Your task to perform on an android device: allow notifications from all sites in the chrome app Image 0: 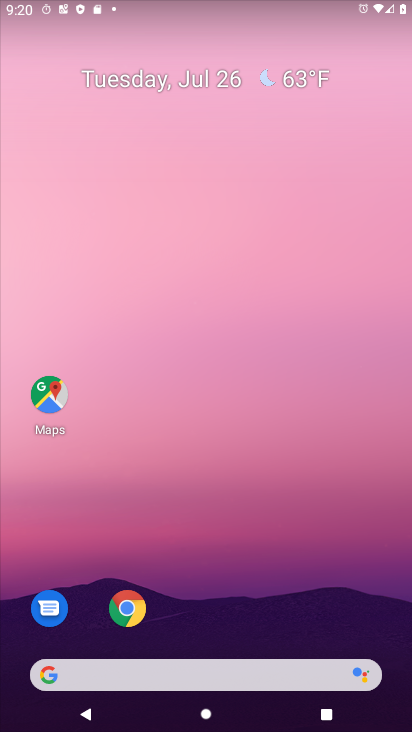
Step 0: click (125, 614)
Your task to perform on an android device: allow notifications from all sites in the chrome app Image 1: 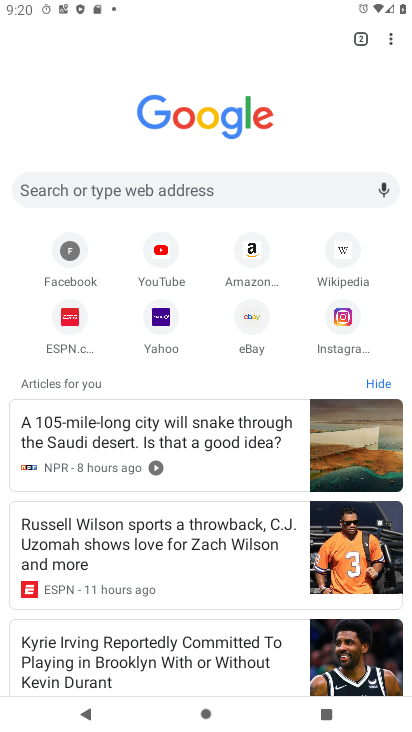
Step 1: click (396, 46)
Your task to perform on an android device: allow notifications from all sites in the chrome app Image 2: 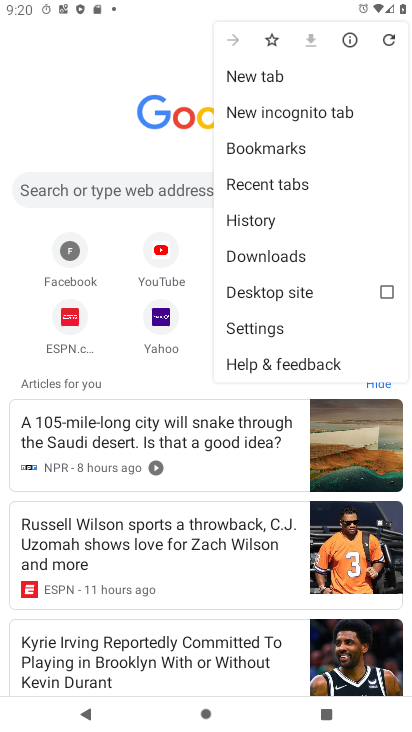
Step 2: click (280, 325)
Your task to perform on an android device: allow notifications from all sites in the chrome app Image 3: 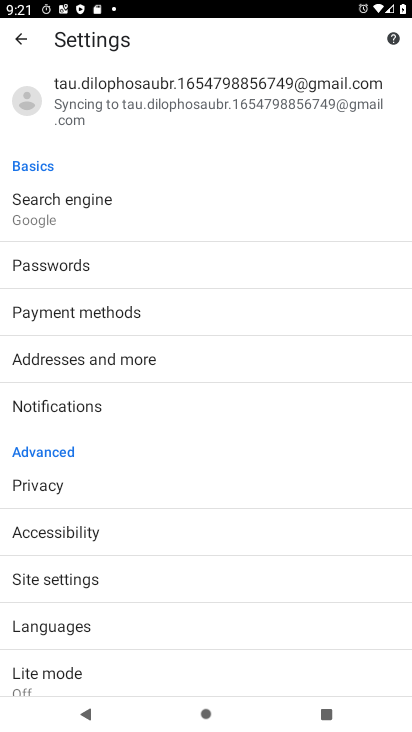
Step 3: click (89, 392)
Your task to perform on an android device: allow notifications from all sites in the chrome app Image 4: 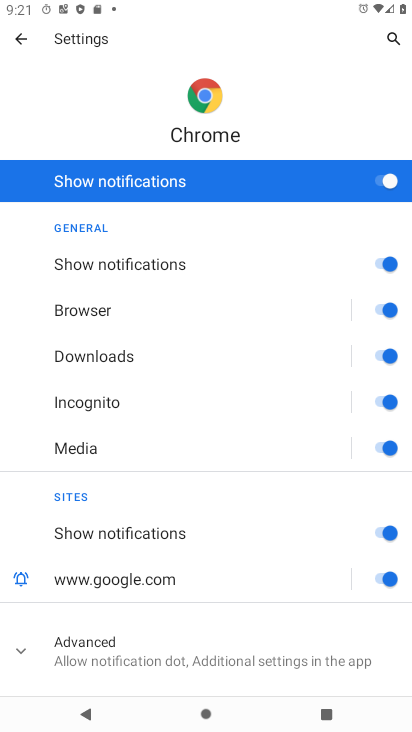
Step 4: task complete